Your task to perform on an android device: Add "razer kraken" to the cart on walmart.com Image 0: 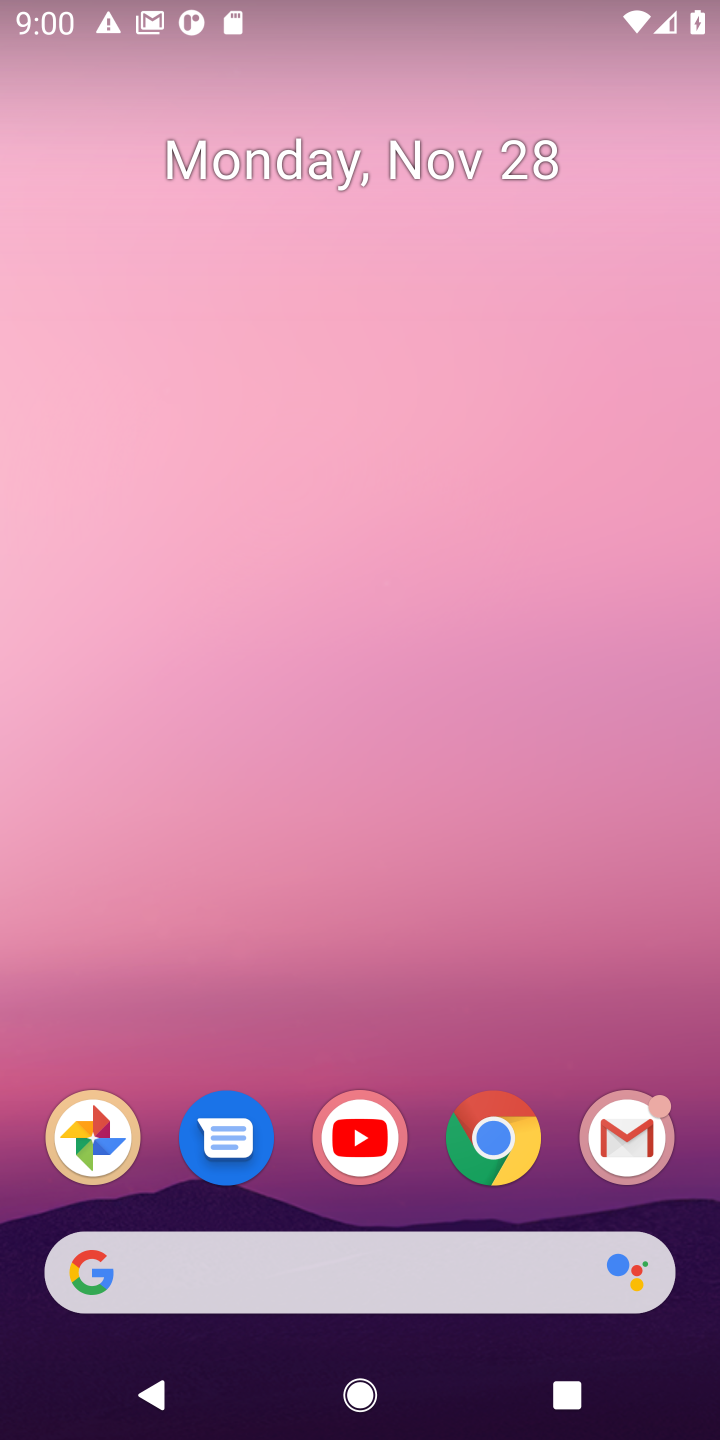
Step 0: click (512, 1132)
Your task to perform on an android device: Add "razer kraken" to the cart on walmart.com Image 1: 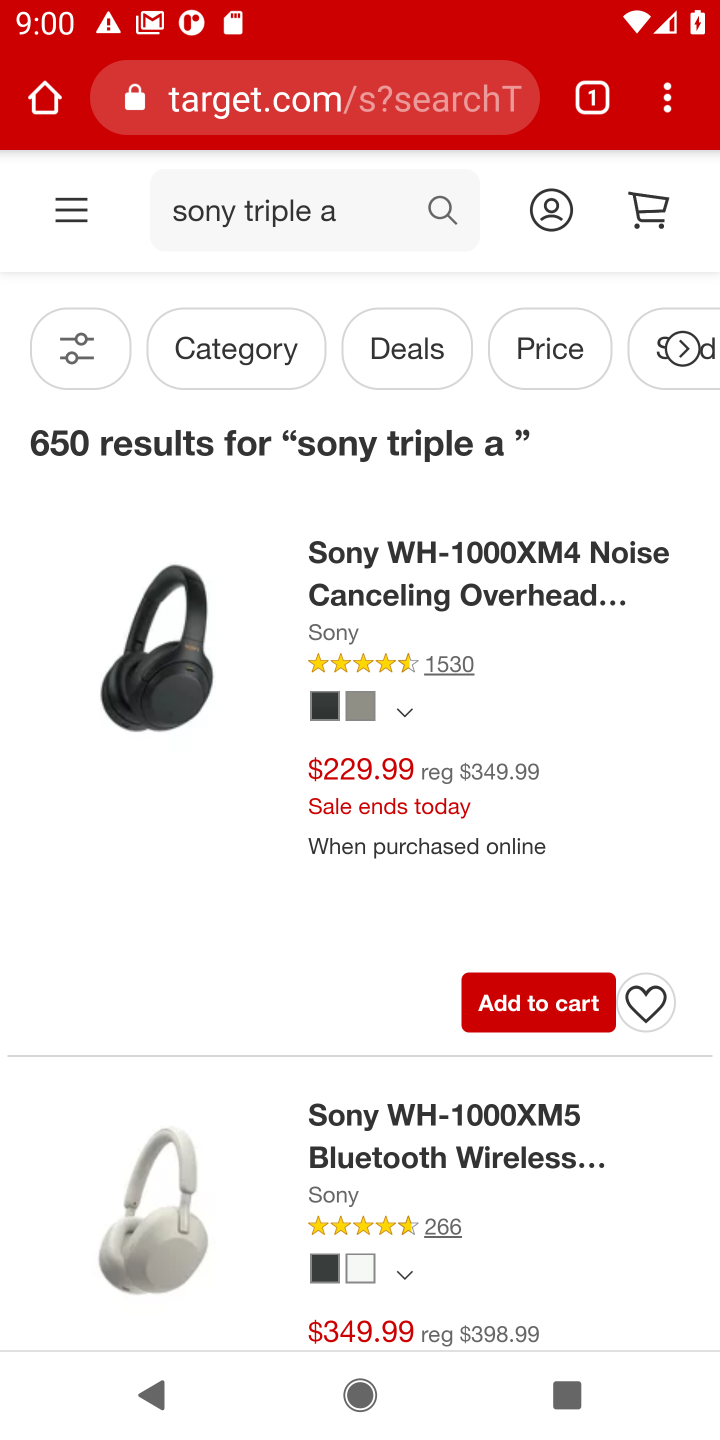
Step 1: click (363, 109)
Your task to perform on an android device: Add "razer kraken" to the cart on walmart.com Image 2: 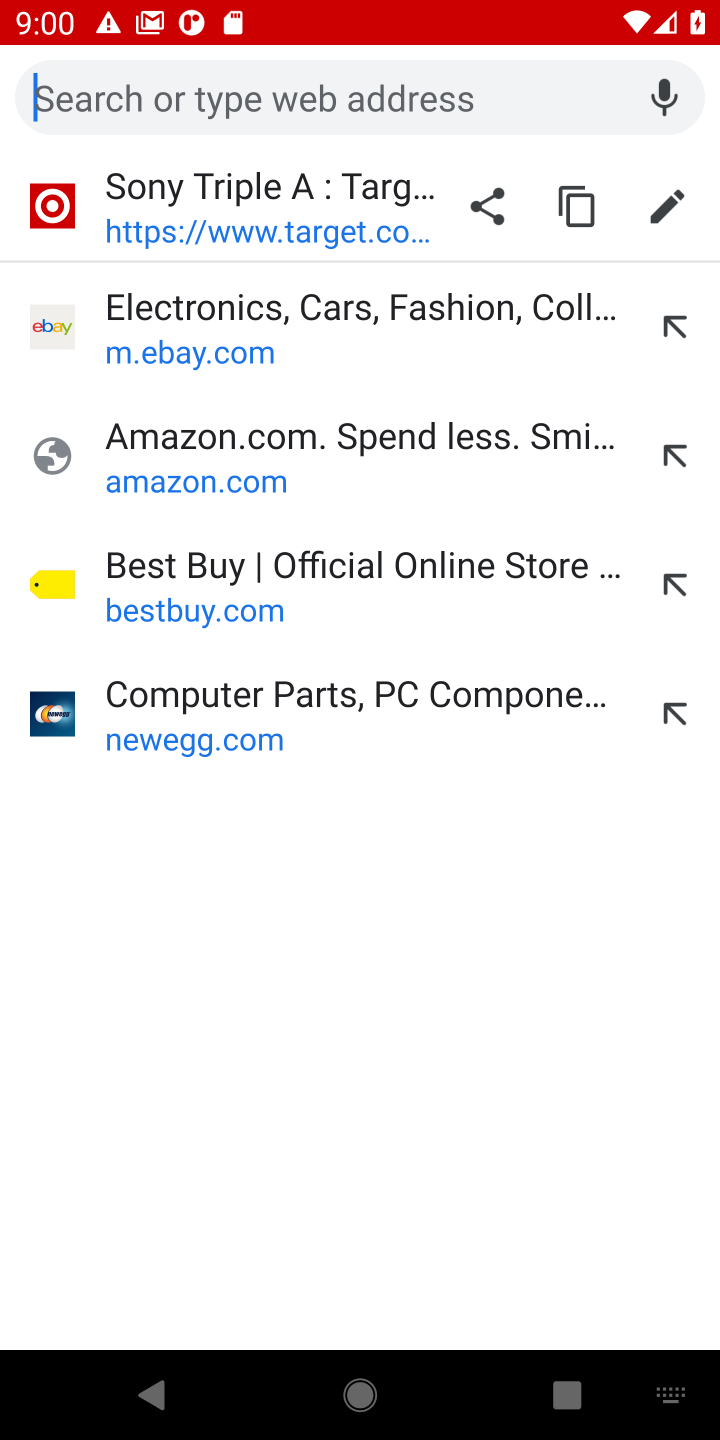
Step 2: type "walmart.com"
Your task to perform on an android device: Add "razer kraken" to the cart on walmart.com Image 3: 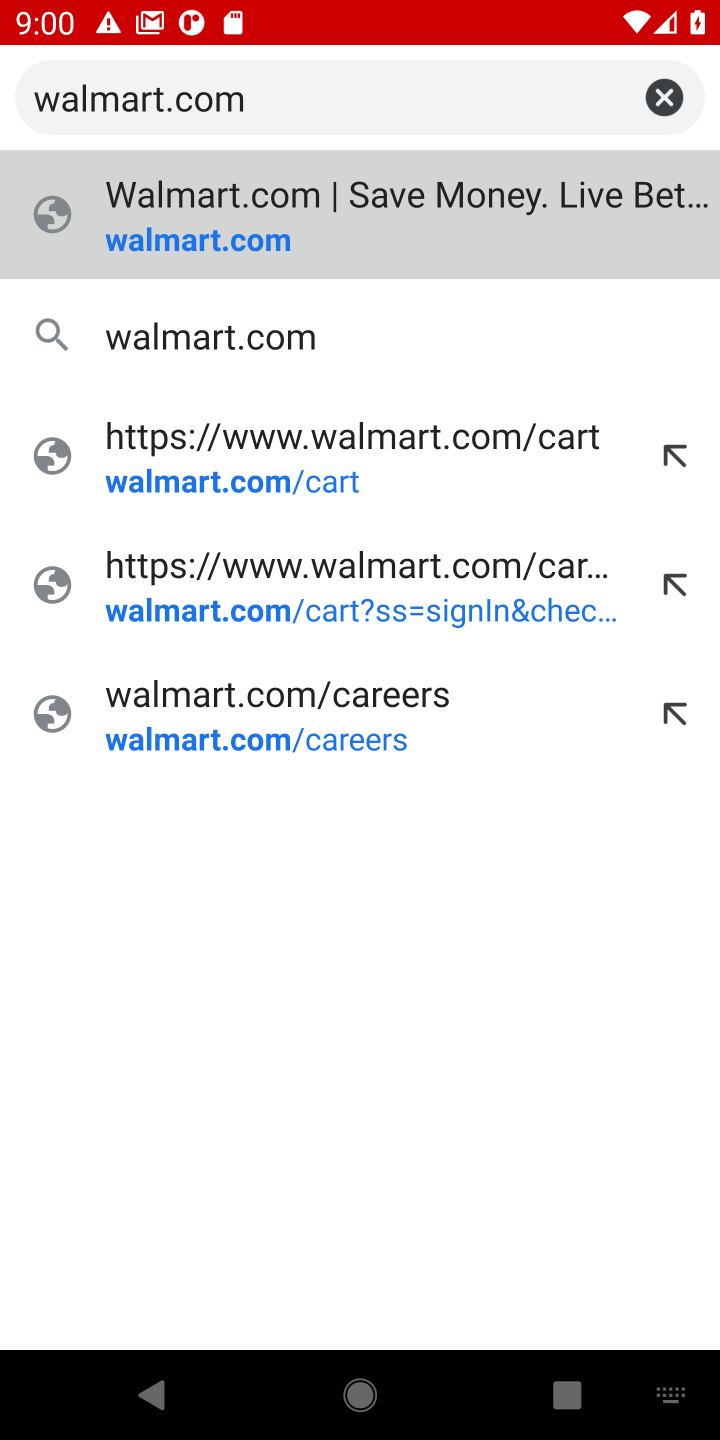
Step 3: click (194, 242)
Your task to perform on an android device: Add "razer kraken" to the cart on walmart.com Image 4: 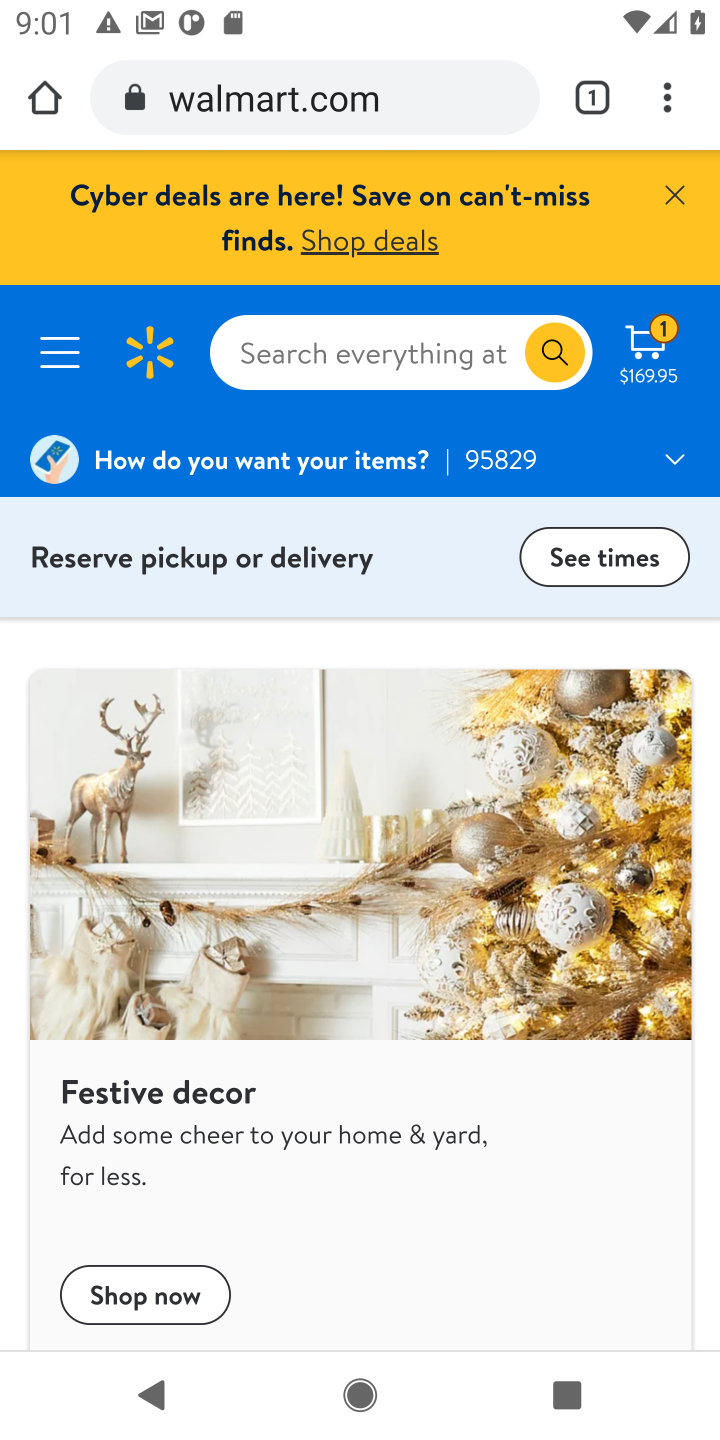
Step 4: click (411, 352)
Your task to perform on an android device: Add "razer kraken" to the cart on walmart.com Image 5: 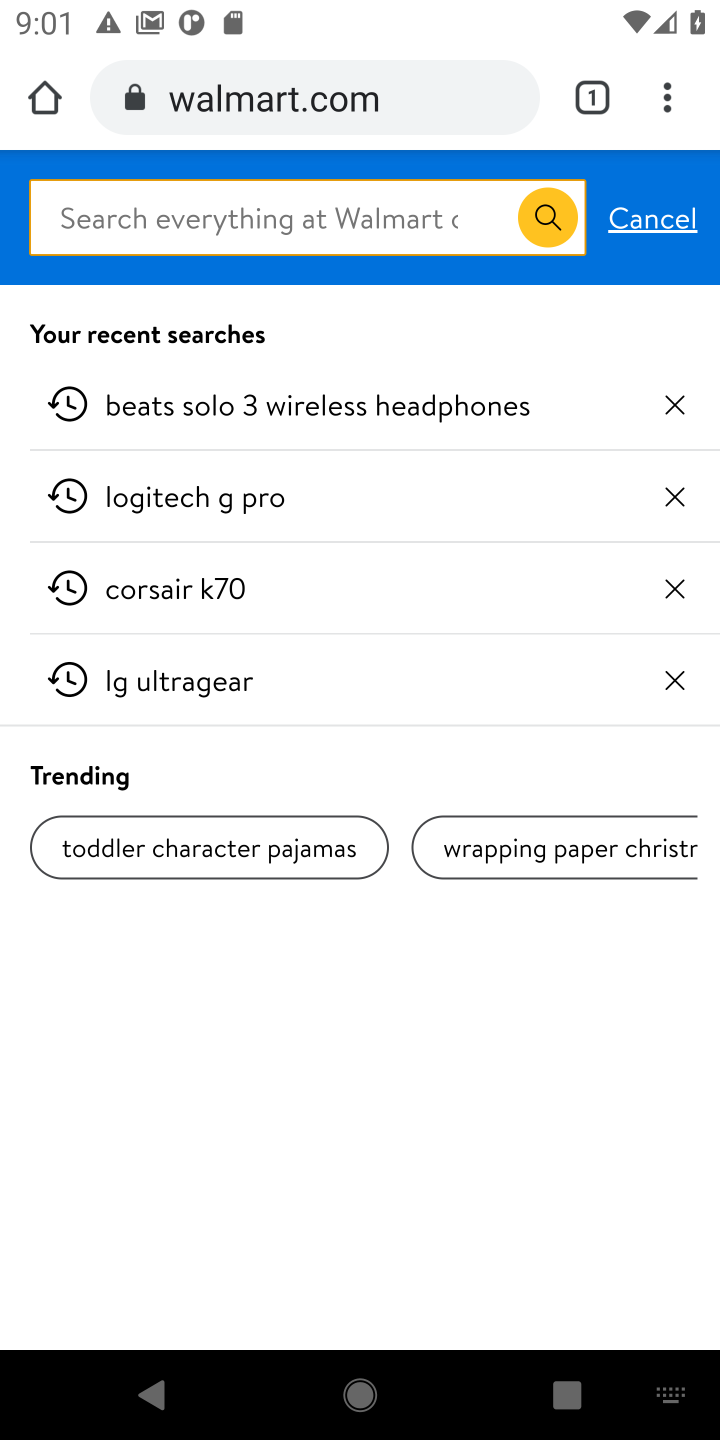
Step 5: type "razer kraken"
Your task to perform on an android device: Add "razer kraken" to the cart on walmart.com Image 6: 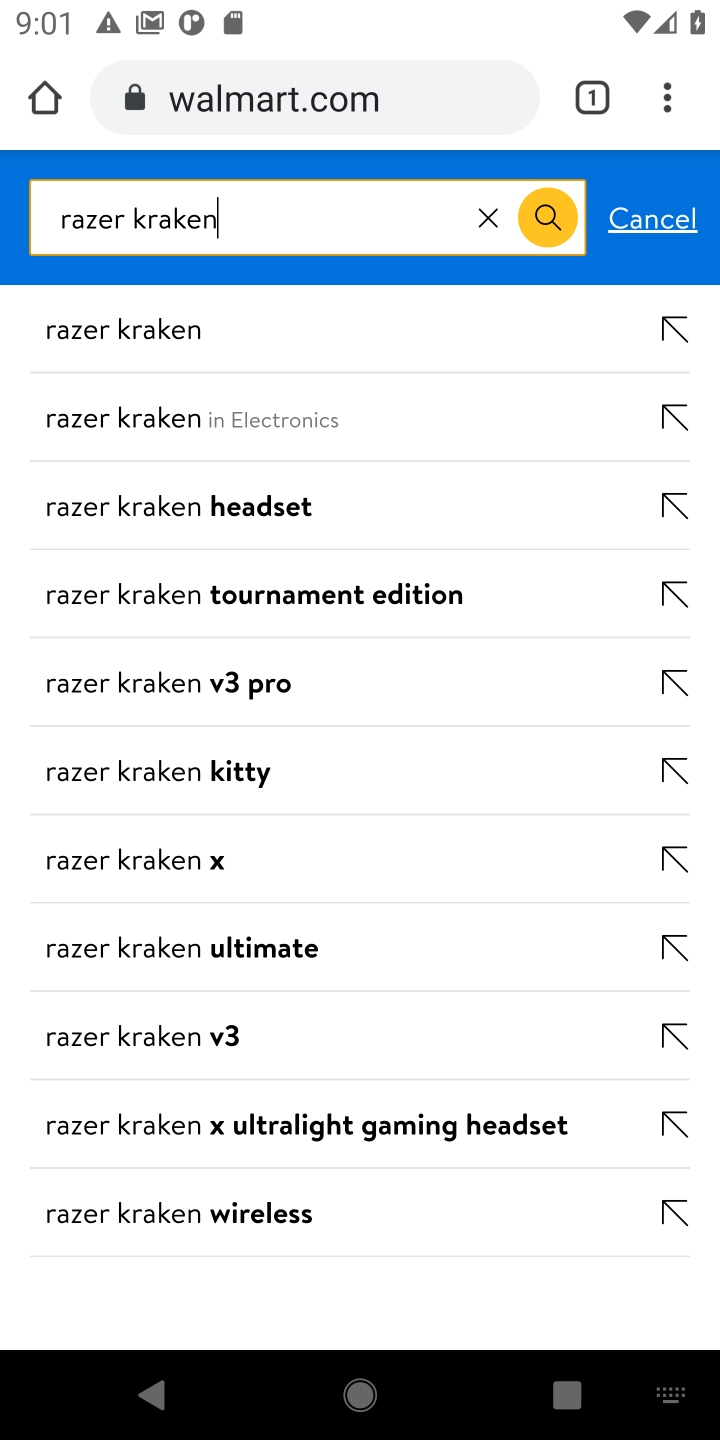
Step 6: click (168, 342)
Your task to perform on an android device: Add "razer kraken" to the cart on walmart.com Image 7: 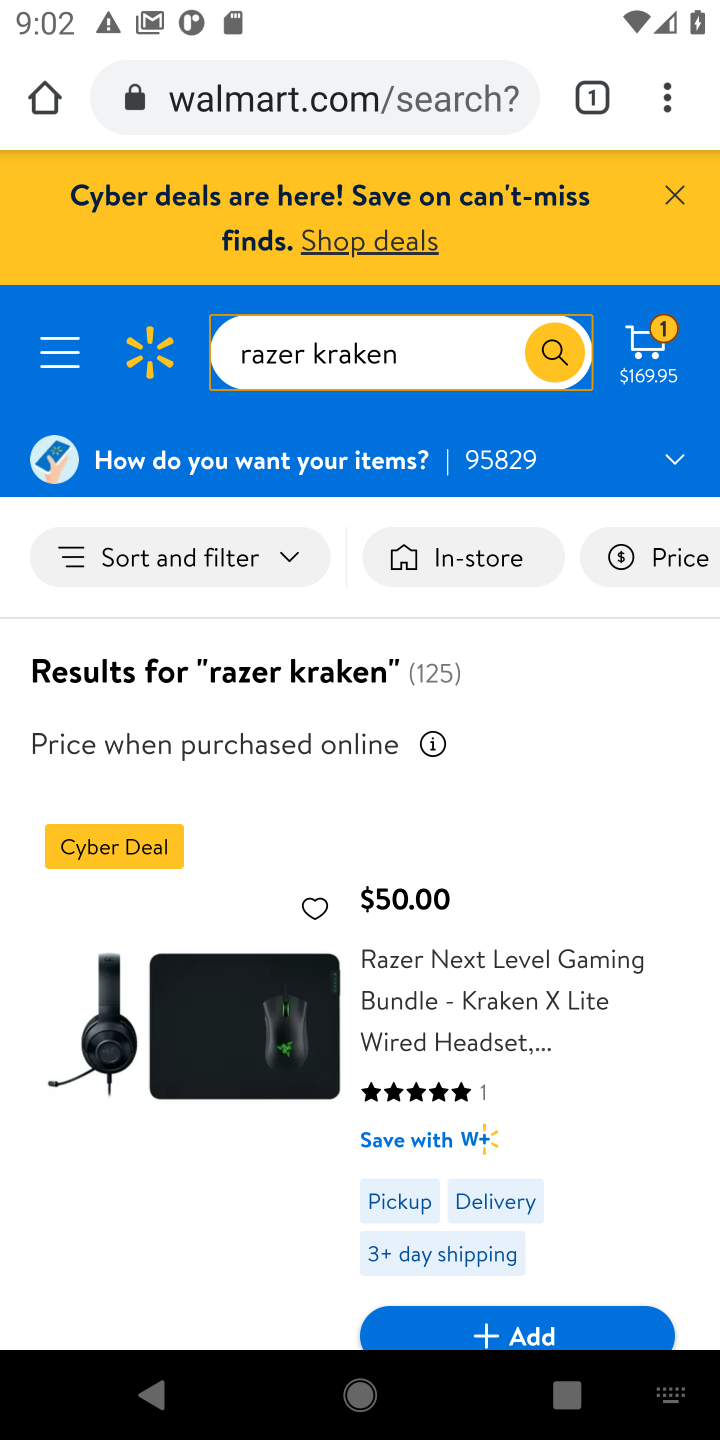
Step 7: click (486, 1334)
Your task to perform on an android device: Add "razer kraken" to the cart on walmart.com Image 8: 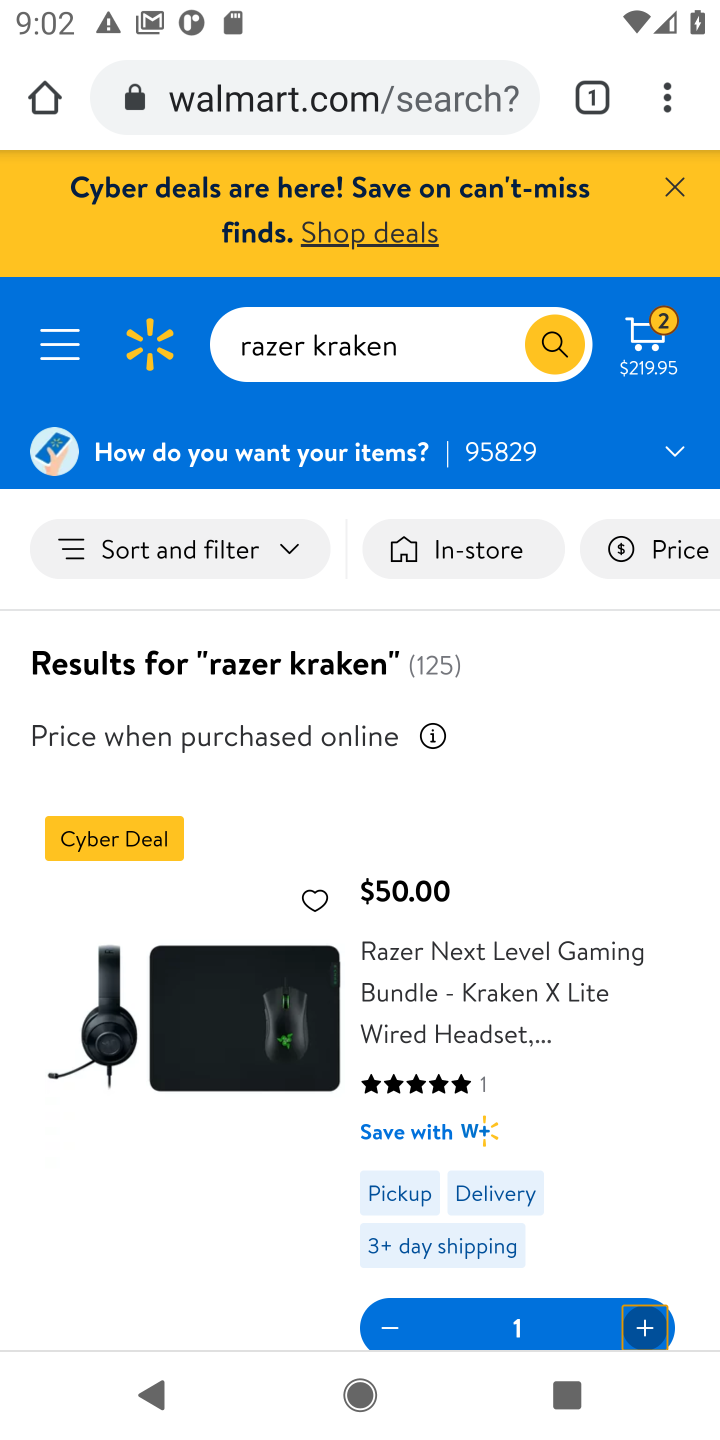
Step 8: task complete